Your task to perform on an android device: Open the web browser Image 0: 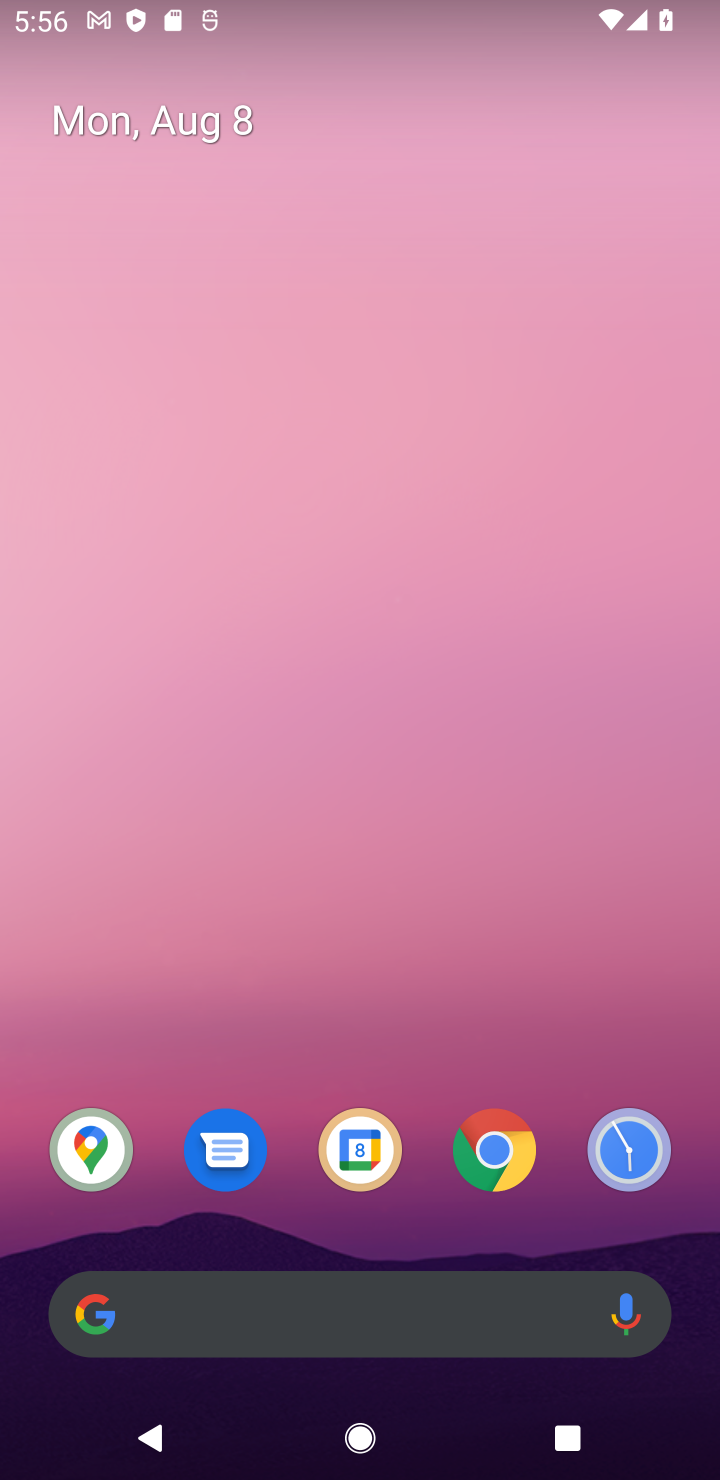
Step 0: click (498, 1157)
Your task to perform on an android device: Open the web browser Image 1: 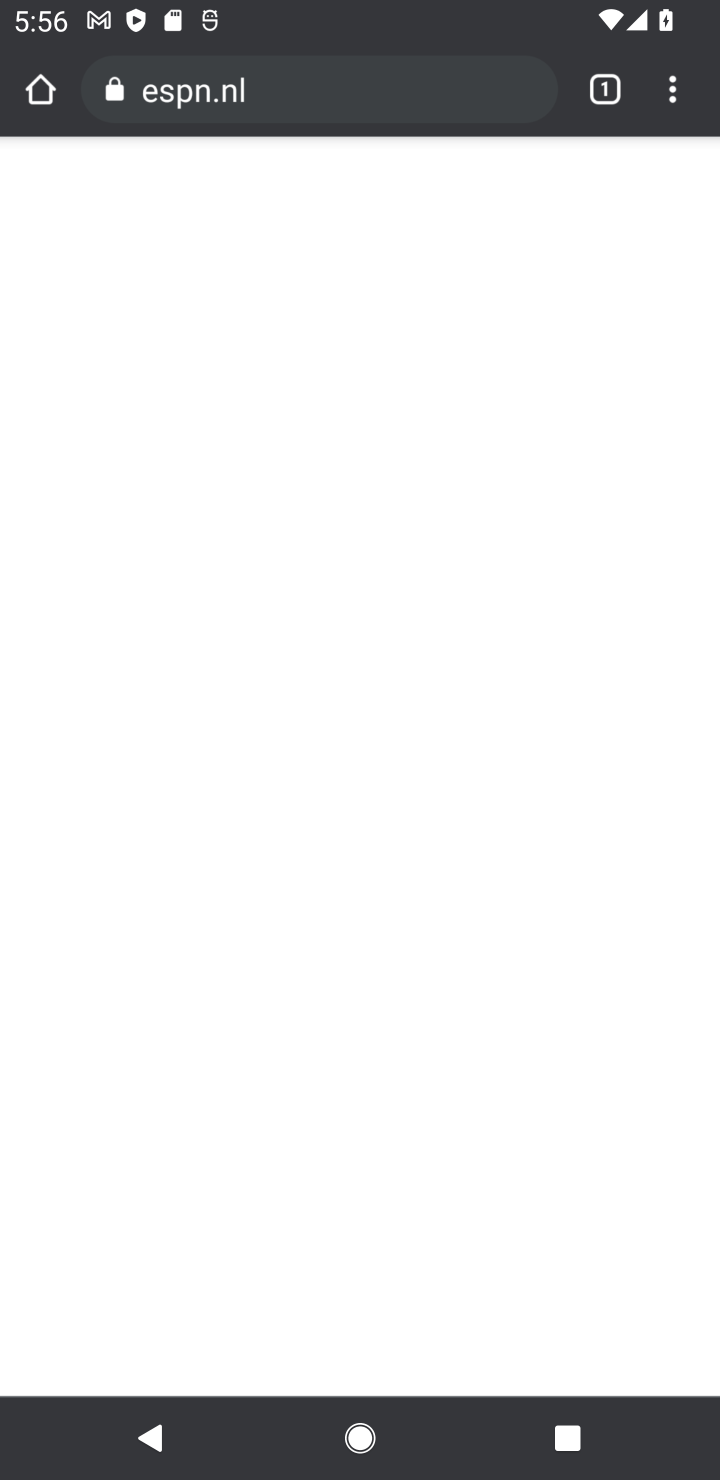
Step 1: task complete